Your task to perform on an android device: Open Youtube and go to the subscriptions tab Image 0: 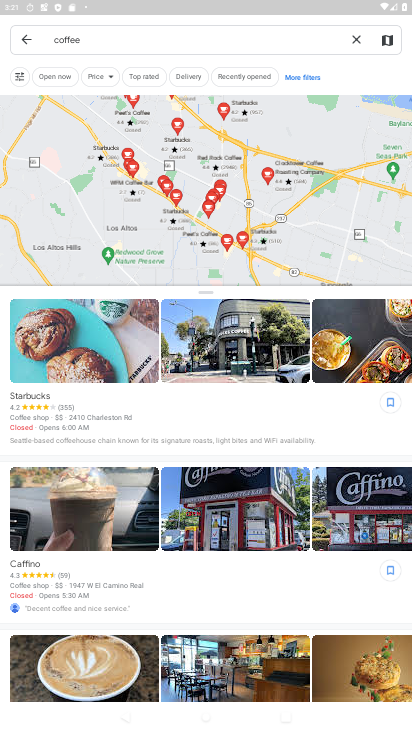
Step 0: press home button
Your task to perform on an android device: Open Youtube and go to the subscriptions tab Image 1: 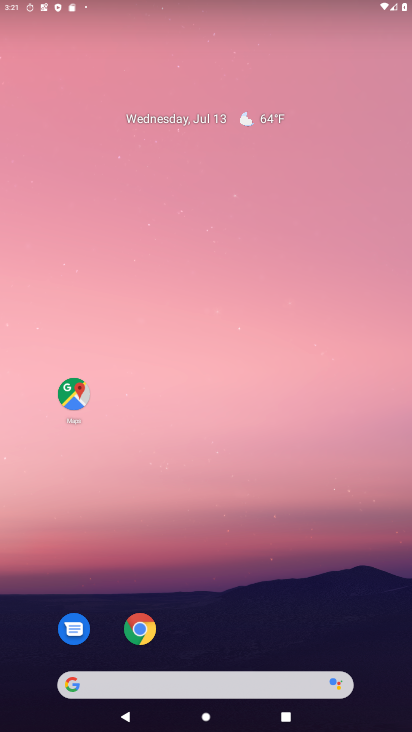
Step 1: drag from (302, 685) to (376, 8)
Your task to perform on an android device: Open Youtube and go to the subscriptions tab Image 2: 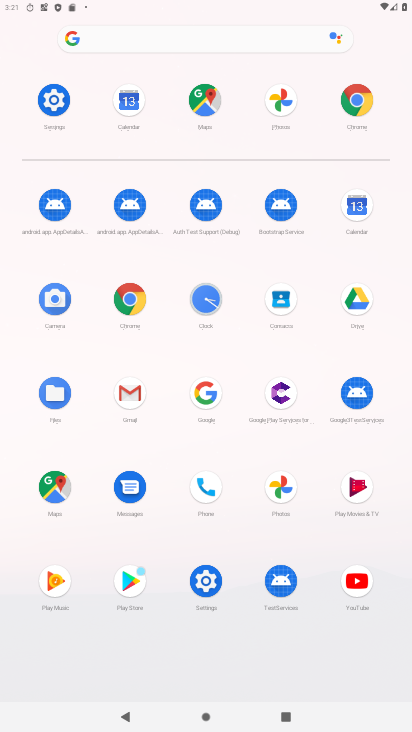
Step 2: click (368, 583)
Your task to perform on an android device: Open Youtube and go to the subscriptions tab Image 3: 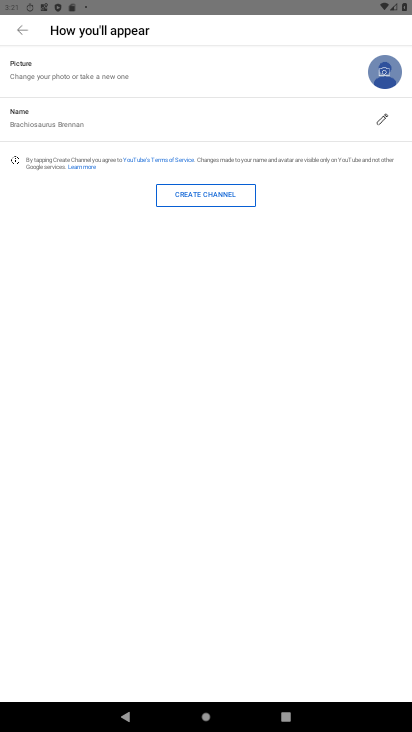
Step 3: press back button
Your task to perform on an android device: Open Youtube and go to the subscriptions tab Image 4: 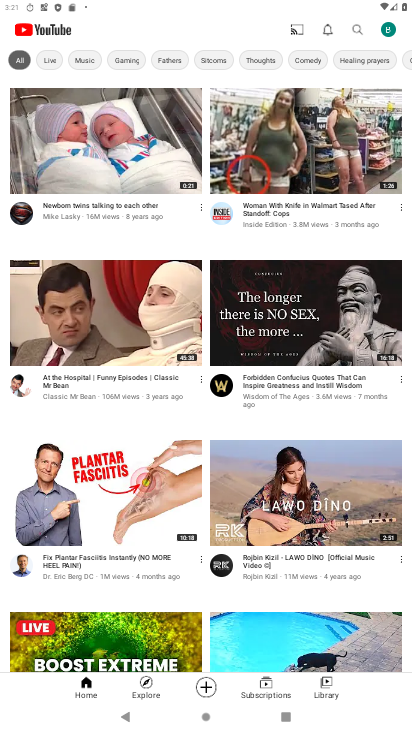
Step 4: click (277, 691)
Your task to perform on an android device: Open Youtube and go to the subscriptions tab Image 5: 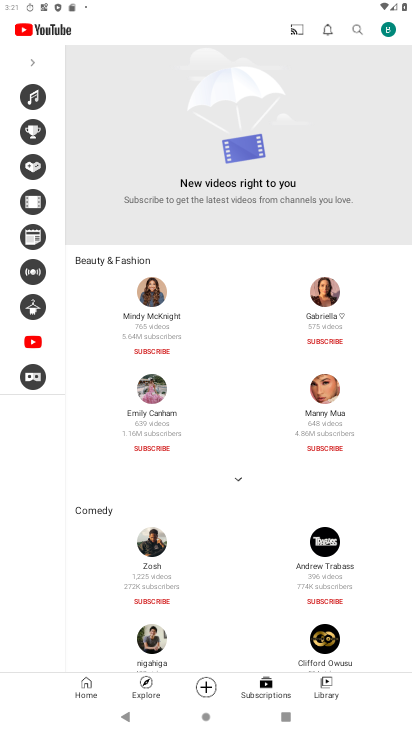
Step 5: task complete